Your task to perform on an android device: What's the weather today? Image 0: 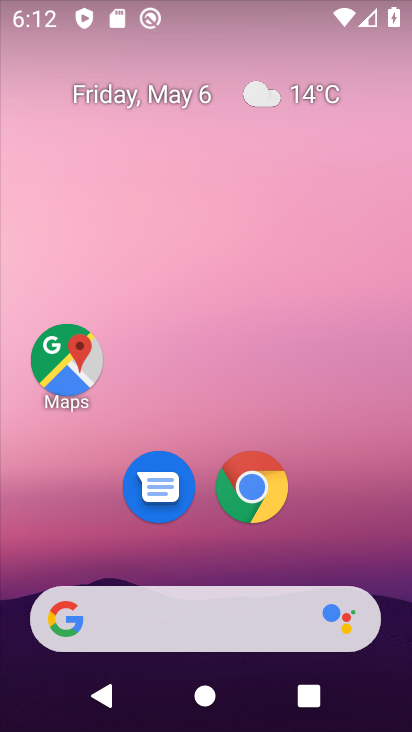
Step 0: drag from (290, 541) to (337, 59)
Your task to perform on an android device: What's the weather today? Image 1: 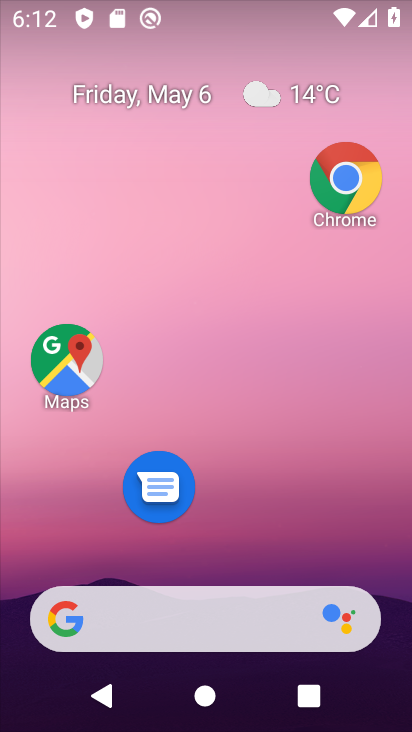
Step 1: drag from (314, 559) to (314, 73)
Your task to perform on an android device: What's the weather today? Image 2: 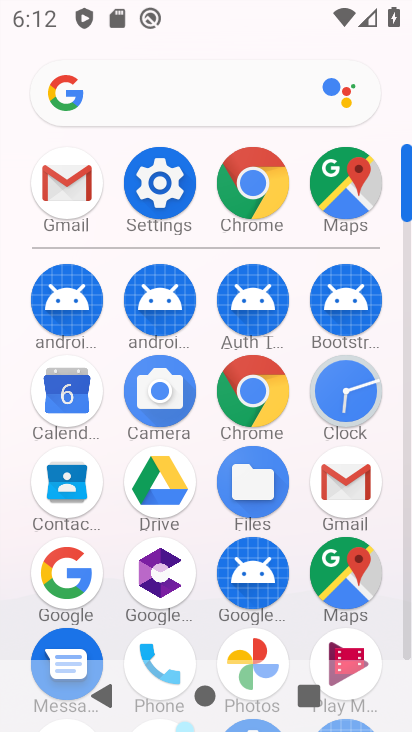
Step 2: click (235, 178)
Your task to perform on an android device: What's the weather today? Image 3: 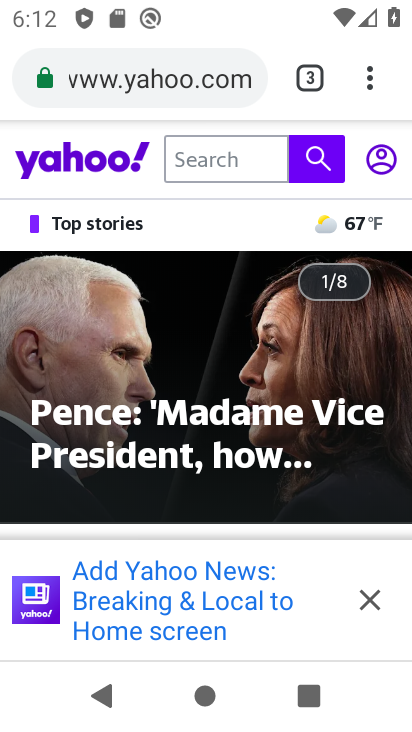
Step 3: task complete